Your task to perform on an android device: turn notification dots off Image 0: 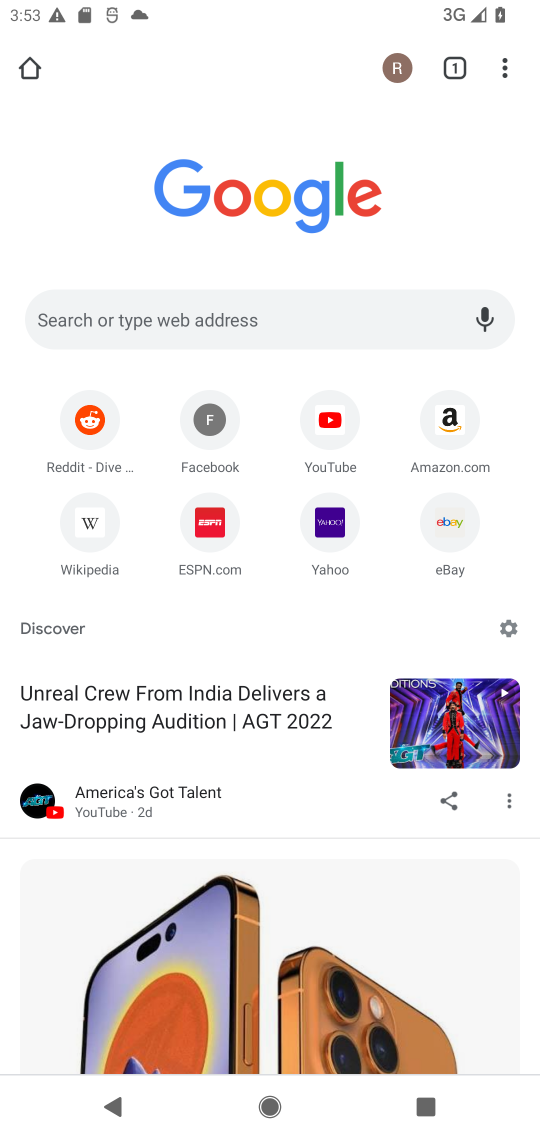
Step 0: press home button
Your task to perform on an android device: turn notification dots off Image 1: 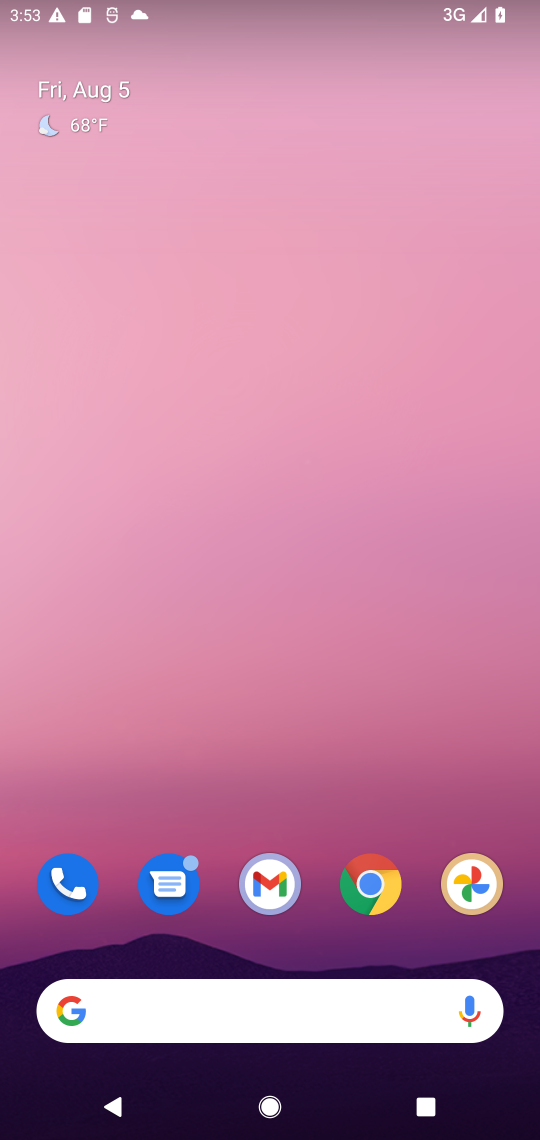
Step 1: drag from (505, 1012) to (330, 36)
Your task to perform on an android device: turn notification dots off Image 2: 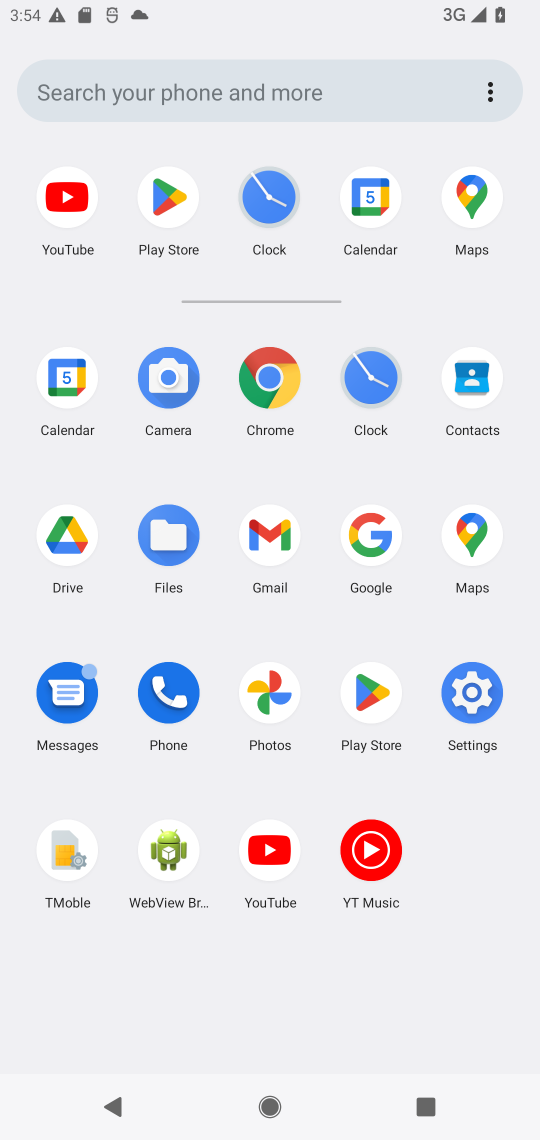
Step 2: click (460, 690)
Your task to perform on an android device: turn notification dots off Image 3: 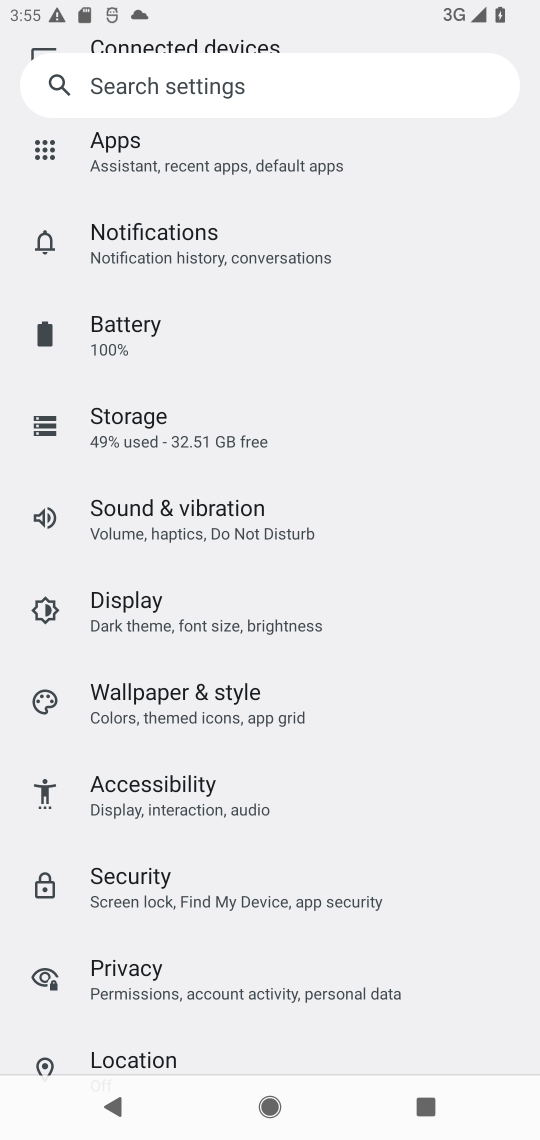
Step 3: click (193, 273)
Your task to perform on an android device: turn notification dots off Image 4: 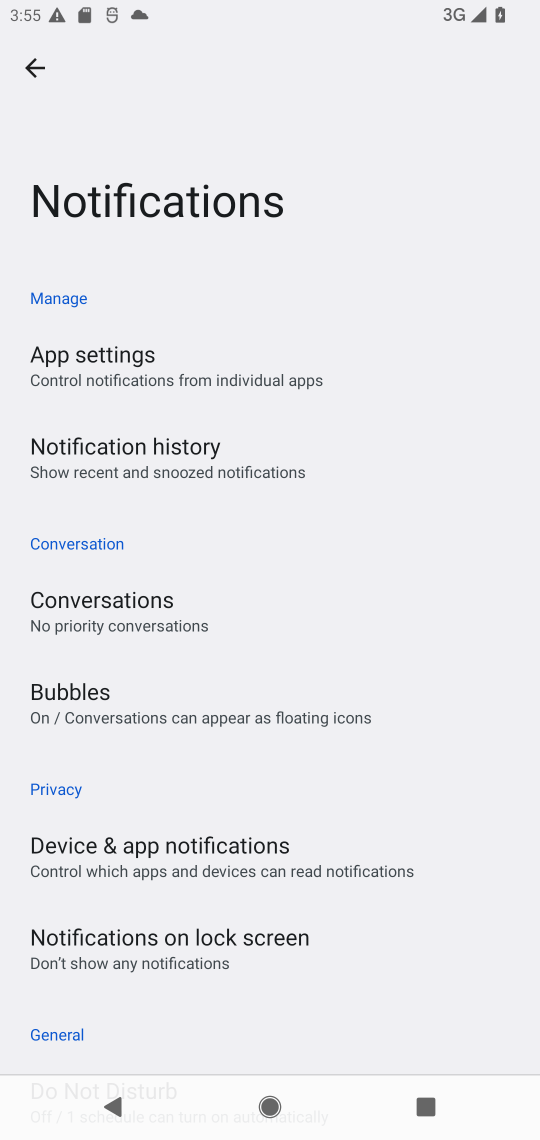
Step 4: drag from (188, 961) to (232, 201)
Your task to perform on an android device: turn notification dots off Image 5: 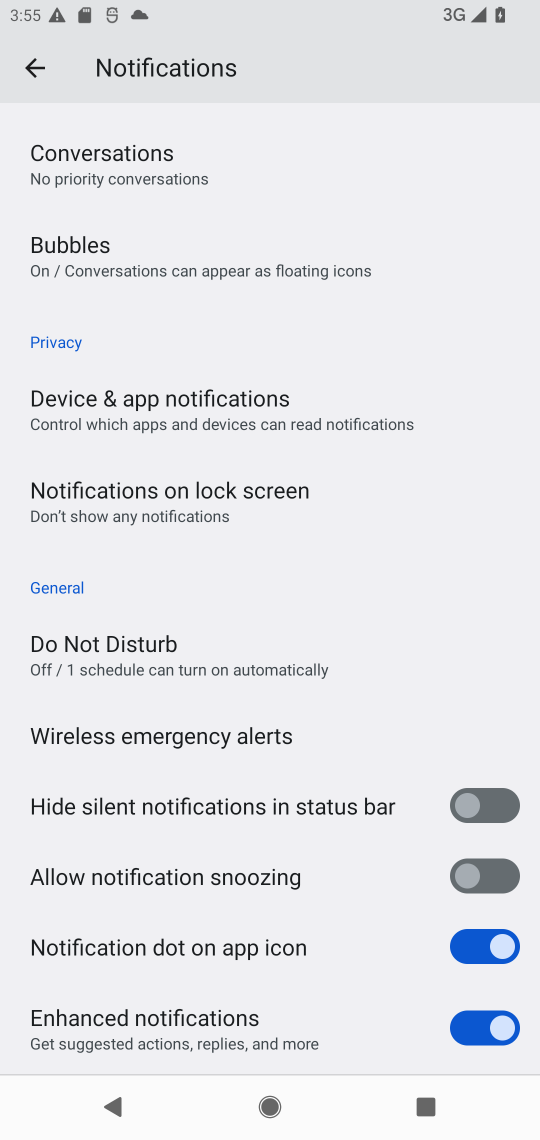
Step 5: click (438, 949)
Your task to perform on an android device: turn notification dots off Image 6: 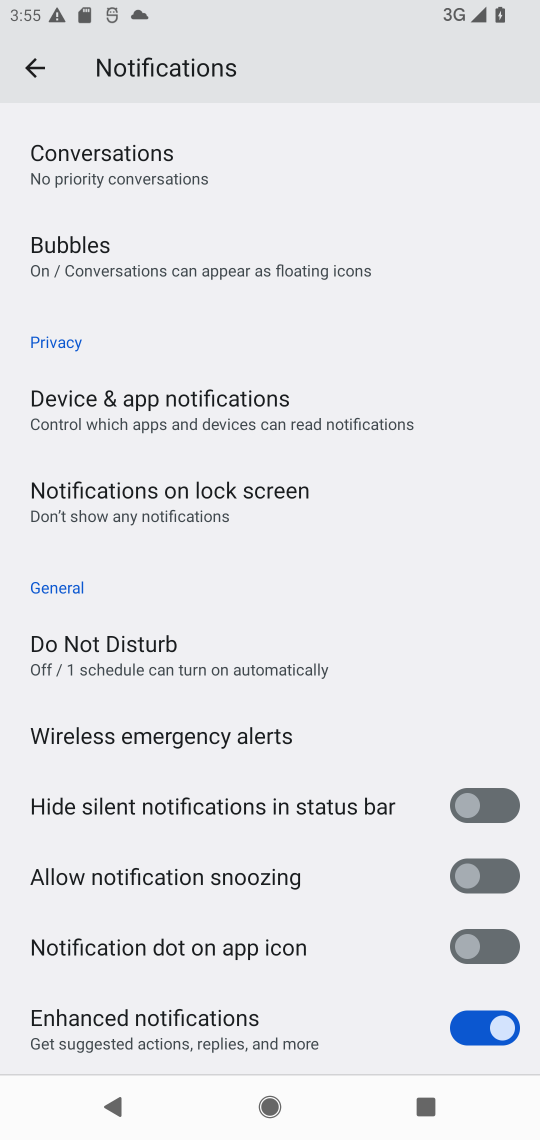
Step 6: task complete